Your task to perform on an android device: see tabs open on other devices in the chrome app Image 0: 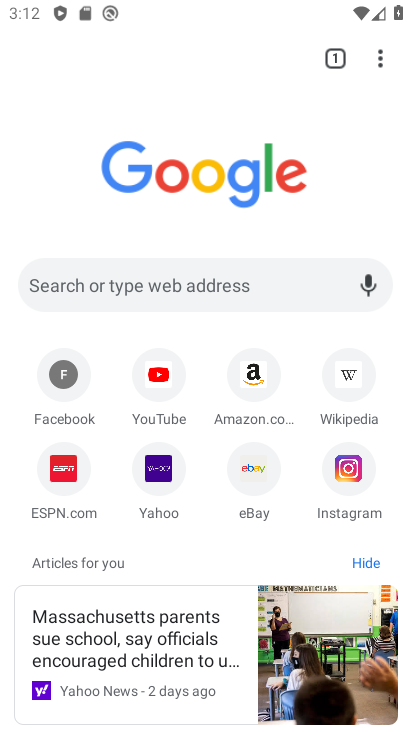
Step 0: press home button
Your task to perform on an android device: see tabs open on other devices in the chrome app Image 1: 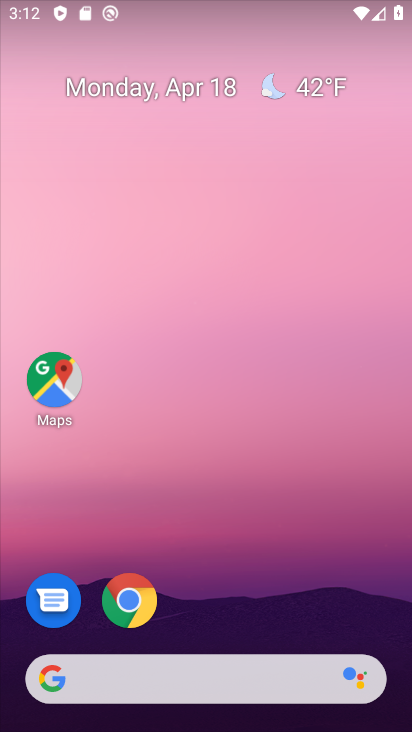
Step 1: drag from (185, 657) to (316, 223)
Your task to perform on an android device: see tabs open on other devices in the chrome app Image 2: 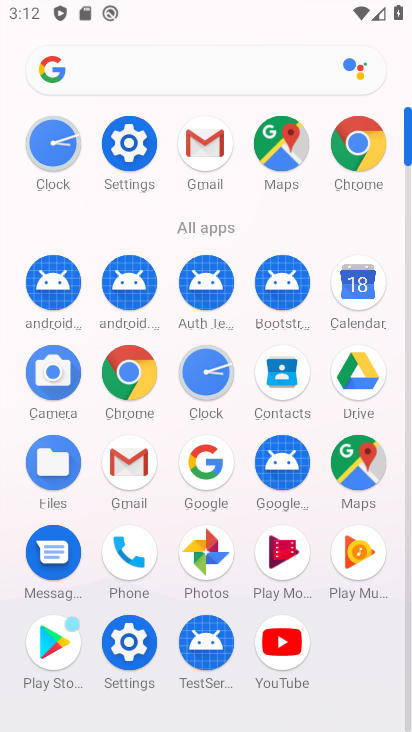
Step 2: click (363, 153)
Your task to perform on an android device: see tabs open on other devices in the chrome app Image 3: 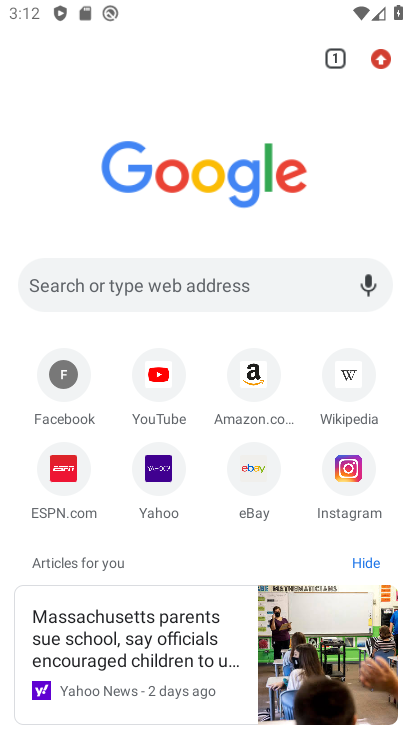
Step 3: click (387, 67)
Your task to perform on an android device: see tabs open on other devices in the chrome app Image 4: 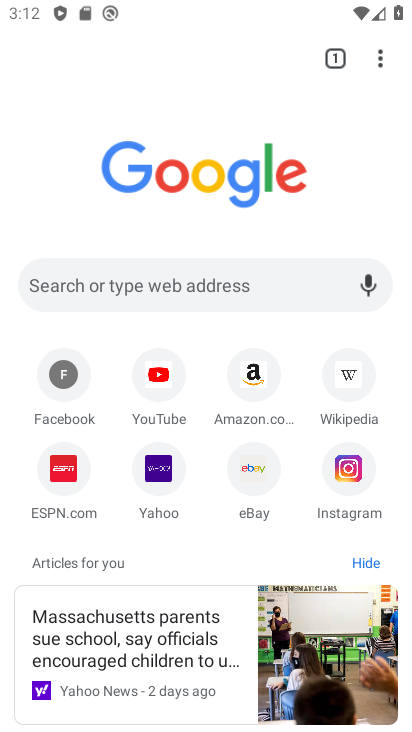
Step 4: click (381, 56)
Your task to perform on an android device: see tabs open on other devices in the chrome app Image 5: 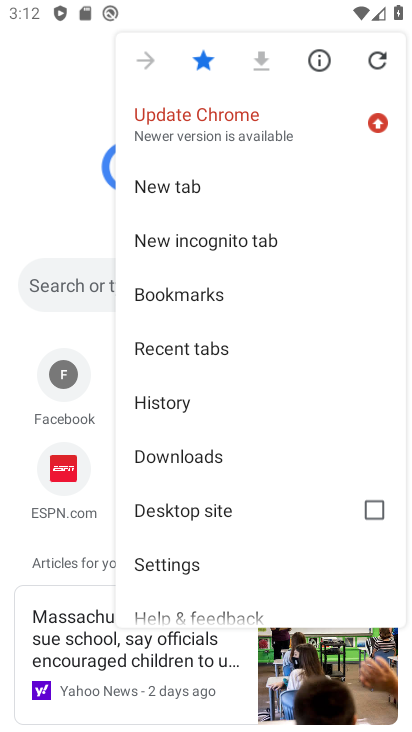
Step 5: click (196, 350)
Your task to perform on an android device: see tabs open on other devices in the chrome app Image 6: 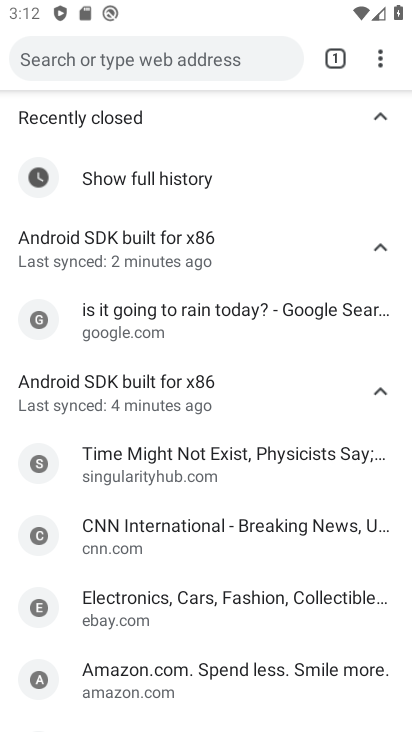
Step 6: task complete